Your task to perform on an android device: remove spam from my inbox in the gmail app Image 0: 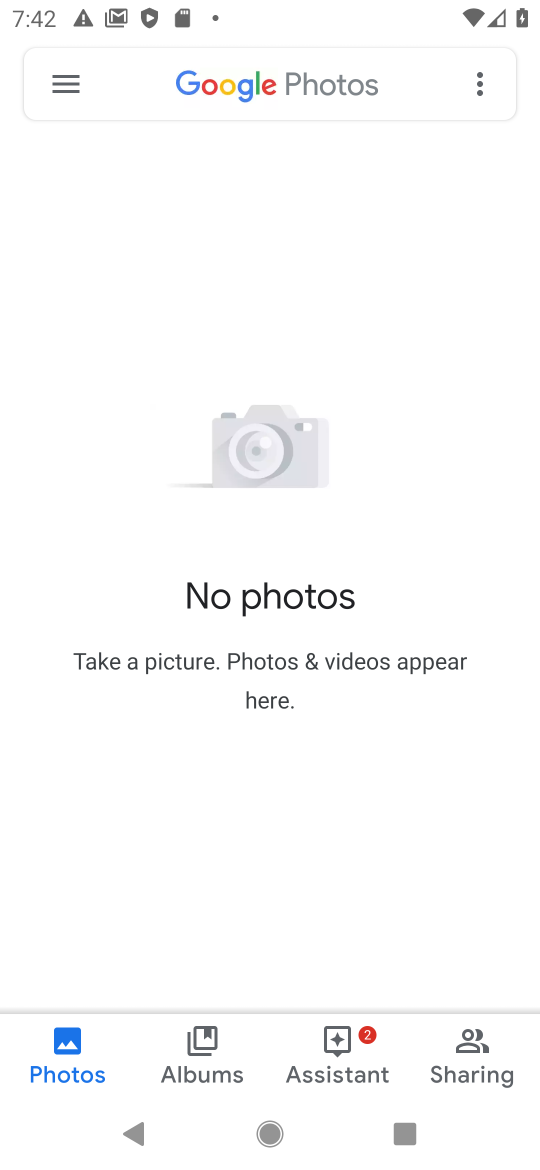
Step 0: press home button
Your task to perform on an android device: remove spam from my inbox in the gmail app Image 1: 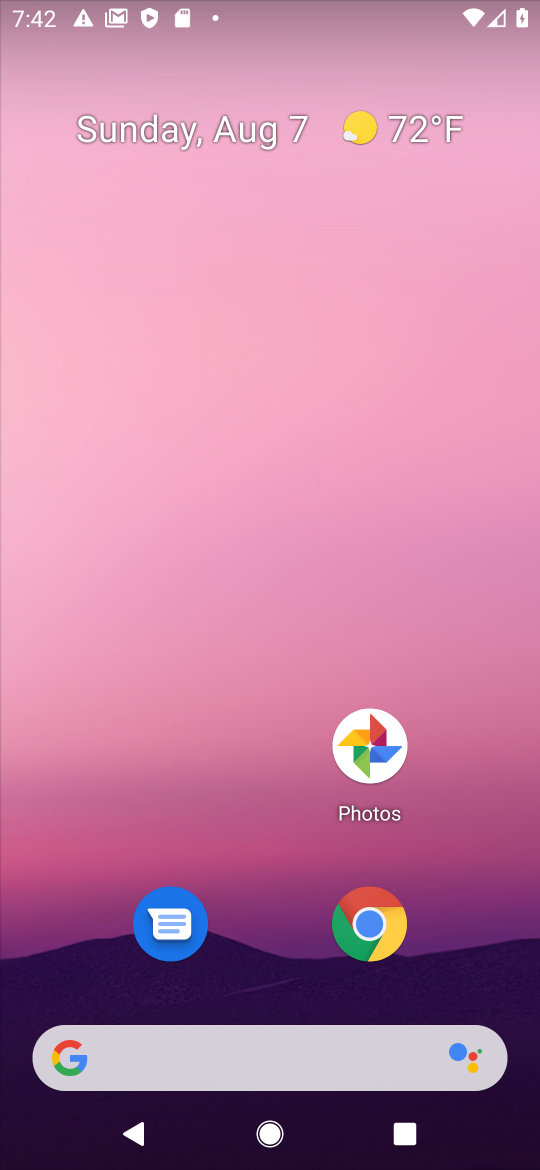
Step 1: drag from (332, 1063) to (305, 363)
Your task to perform on an android device: remove spam from my inbox in the gmail app Image 2: 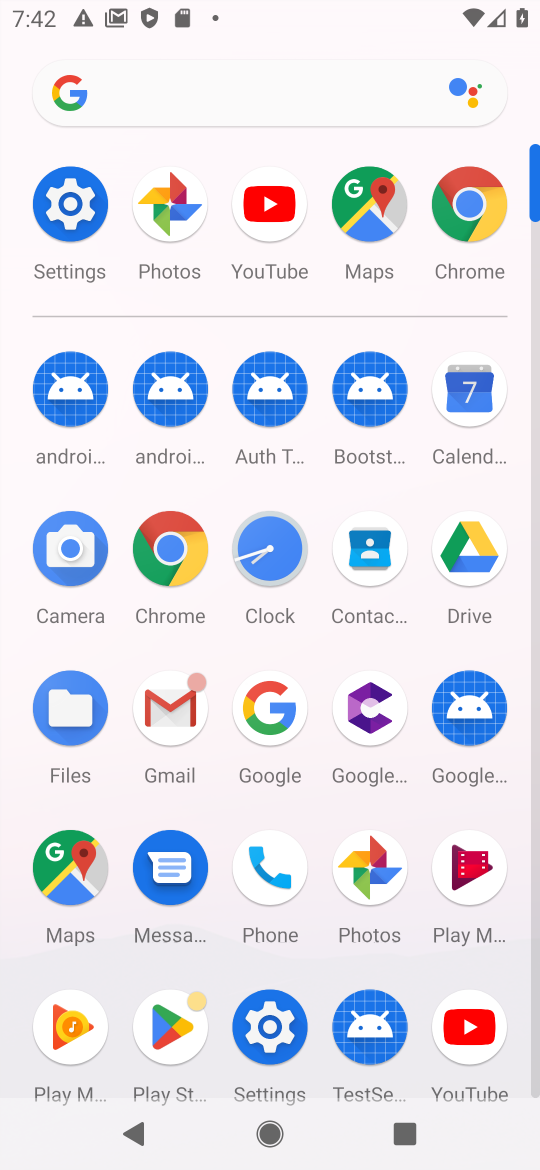
Step 2: click (178, 682)
Your task to perform on an android device: remove spam from my inbox in the gmail app Image 3: 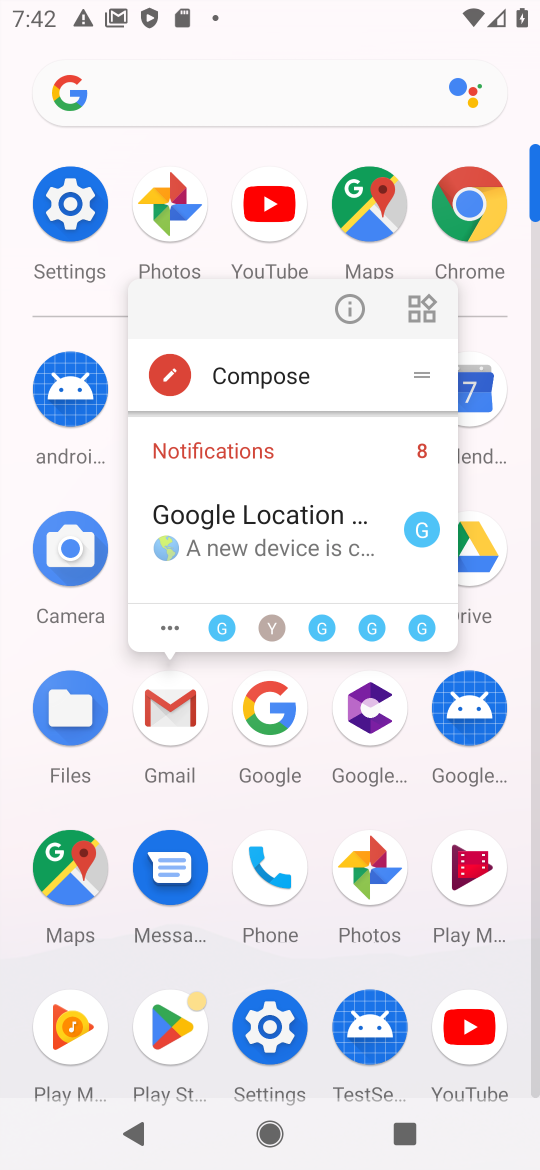
Step 3: click (171, 729)
Your task to perform on an android device: remove spam from my inbox in the gmail app Image 4: 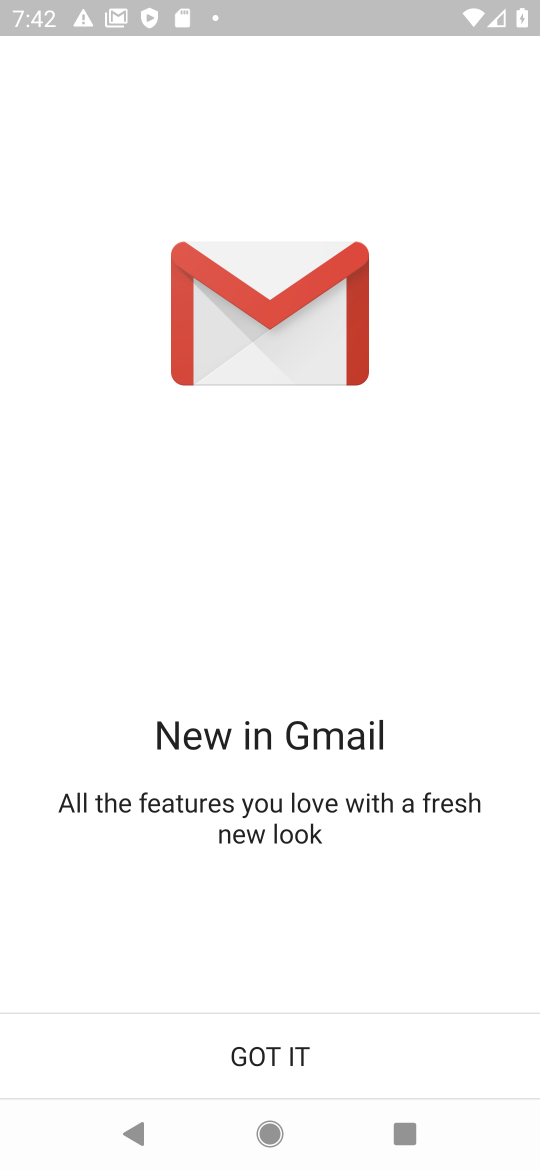
Step 4: click (267, 1069)
Your task to perform on an android device: remove spam from my inbox in the gmail app Image 5: 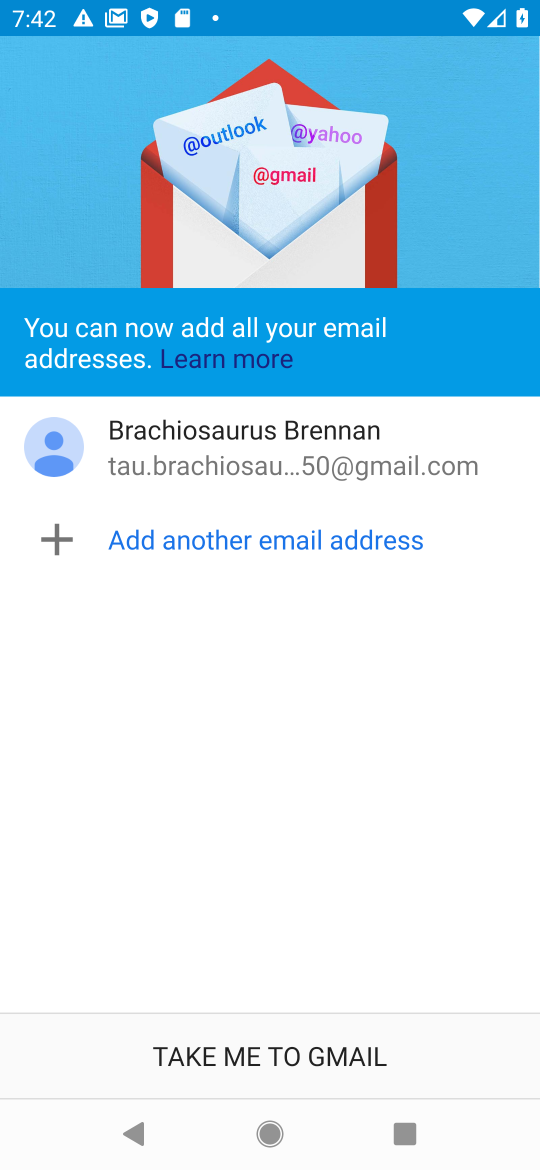
Step 5: click (269, 1062)
Your task to perform on an android device: remove spam from my inbox in the gmail app Image 6: 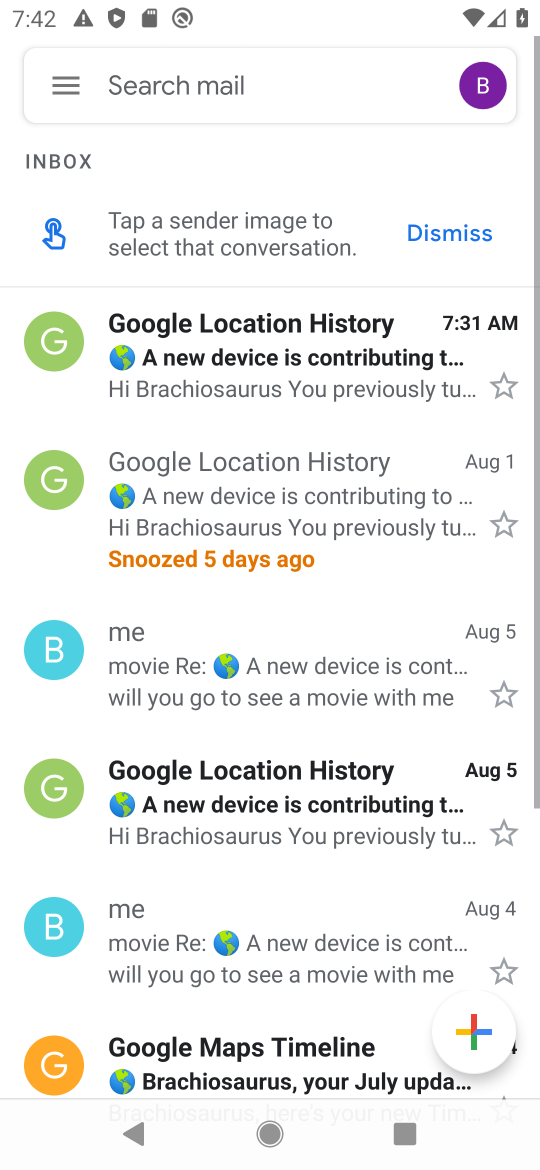
Step 6: click (78, 81)
Your task to perform on an android device: remove spam from my inbox in the gmail app Image 7: 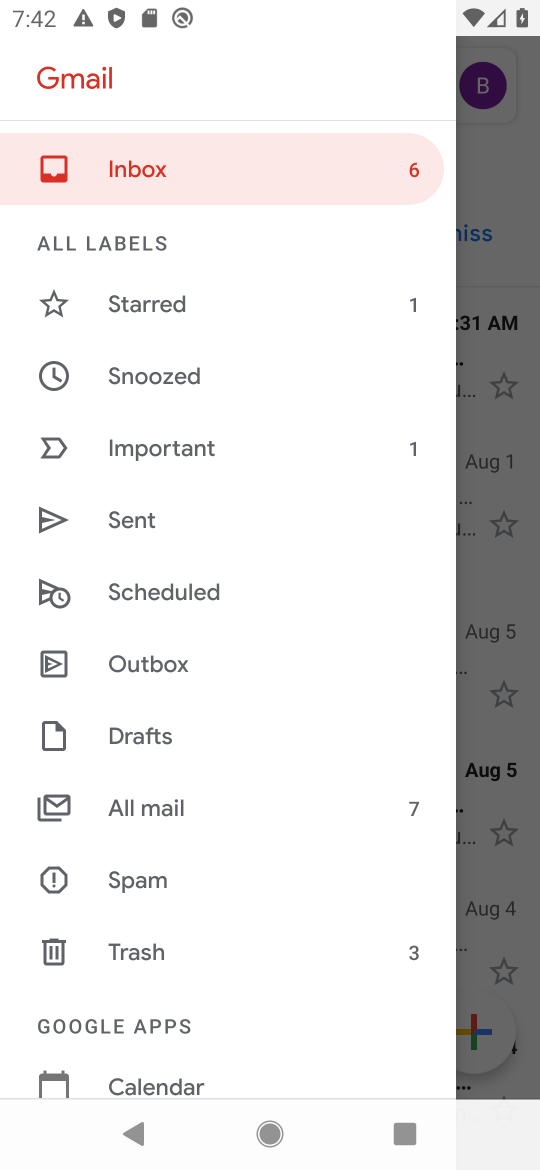
Step 7: click (121, 881)
Your task to perform on an android device: remove spam from my inbox in the gmail app Image 8: 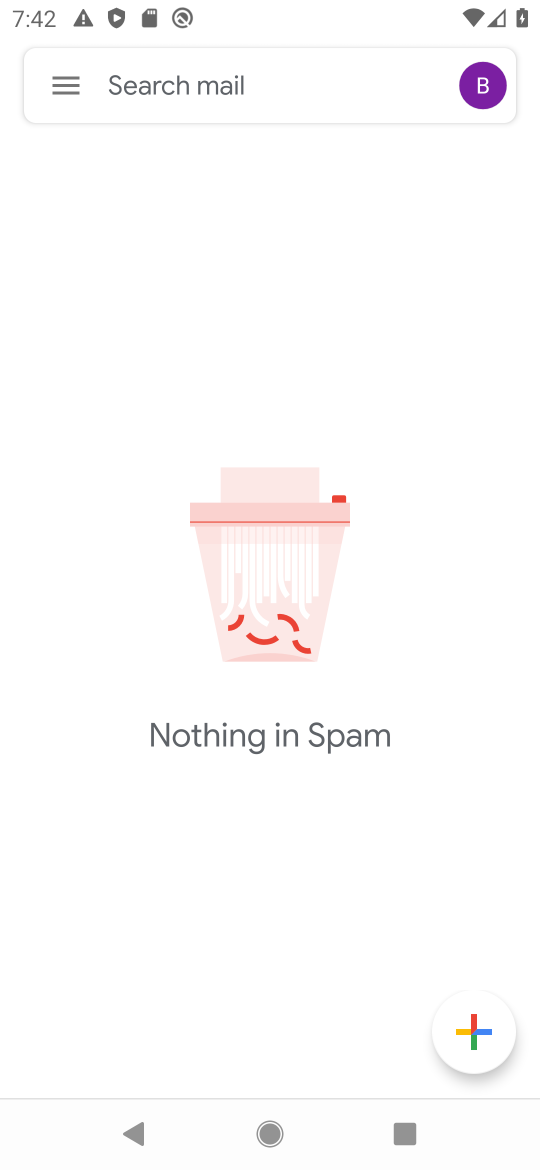
Step 8: task complete